Your task to perform on an android device: Go to calendar. Show me events next week Image 0: 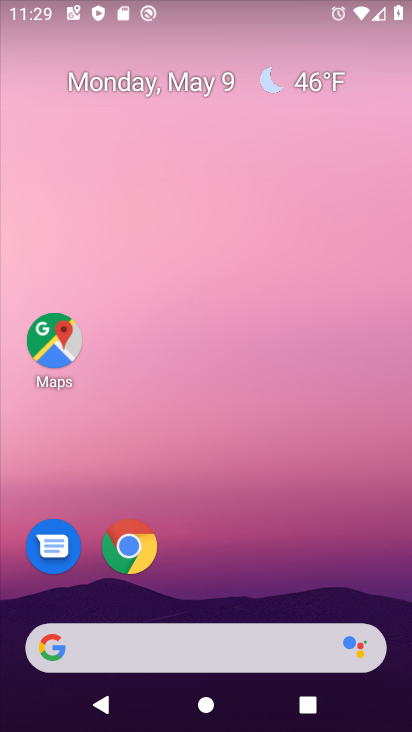
Step 0: drag from (302, 570) to (273, 26)
Your task to perform on an android device: Go to calendar. Show me events next week Image 1: 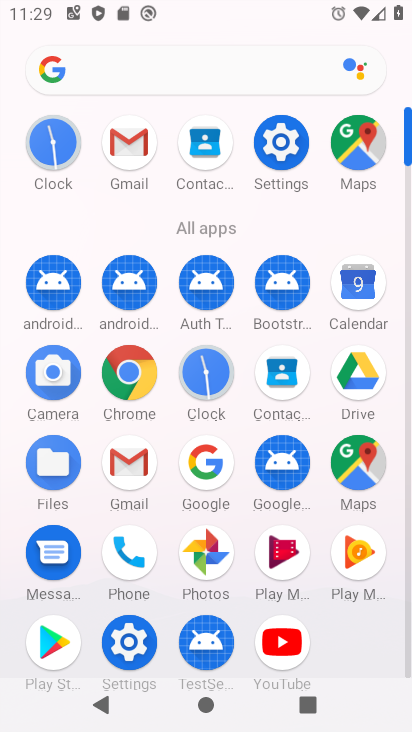
Step 1: click (346, 292)
Your task to perform on an android device: Go to calendar. Show me events next week Image 2: 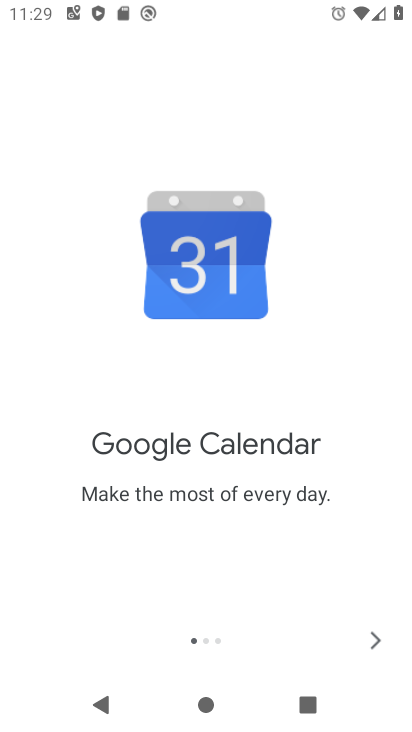
Step 2: click (369, 647)
Your task to perform on an android device: Go to calendar. Show me events next week Image 3: 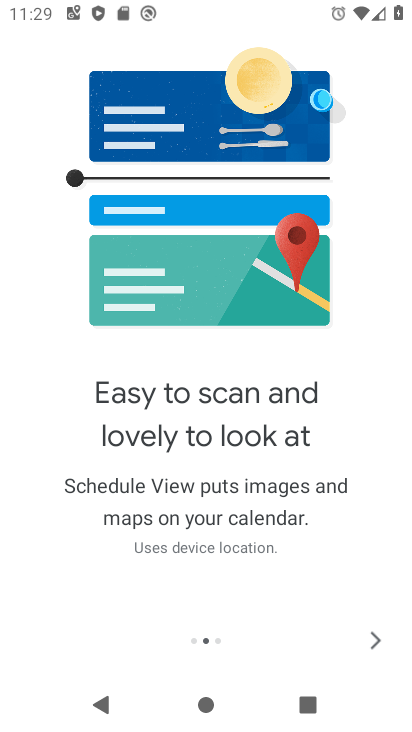
Step 3: click (369, 647)
Your task to perform on an android device: Go to calendar. Show me events next week Image 4: 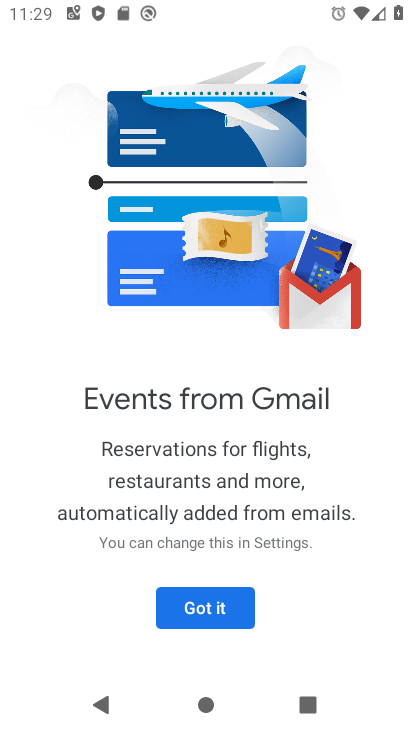
Step 4: click (207, 619)
Your task to perform on an android device: Go to calendar. Show me events next week Image 5: 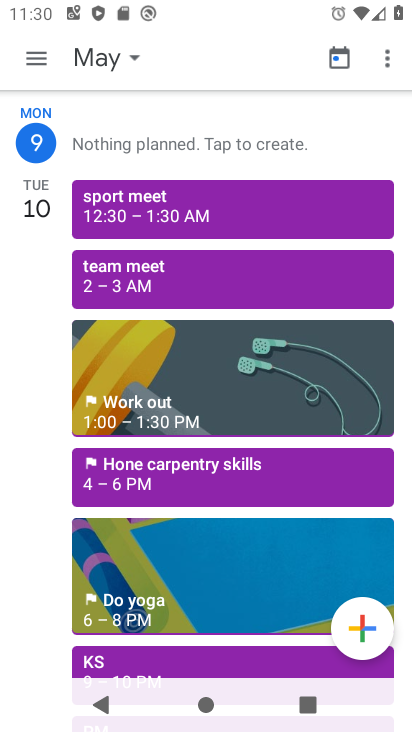
Step 5: click (33, 62)
Your task to perform on an android device: Go to calendar. Show me events next week Image 6: 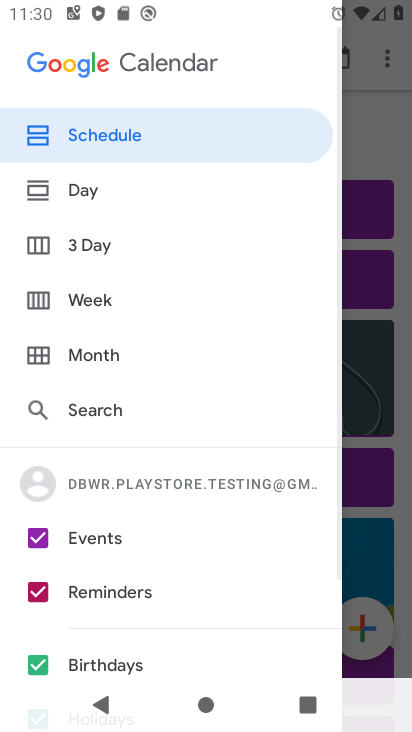
Step 6: click (87, 305)
Your task to perform on an android device: Go to calendar. Show me events next week Image 7: 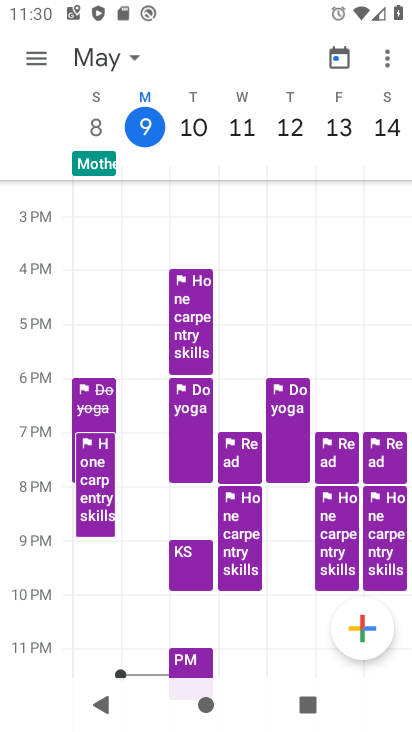
Step 7: drag from (305, 329) to (9, 246)
Your task to perform on an android device: Go to calendar. Show me events next week Image 8: 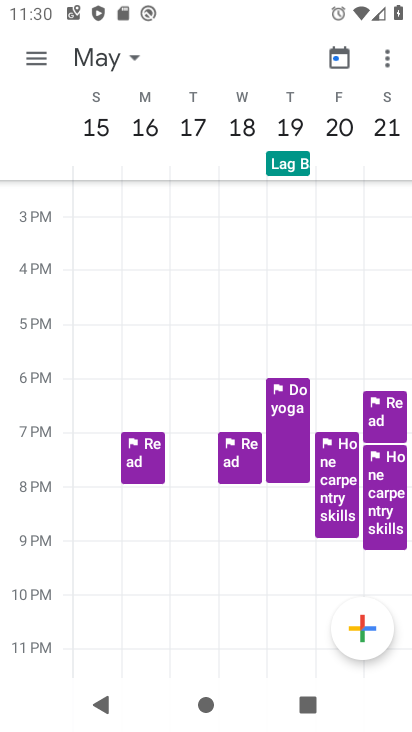
Step 8: drag from (241, 531) to (187, 296)
Your task to perform on an android device: Go to calendar. Show me events next week Image 9: 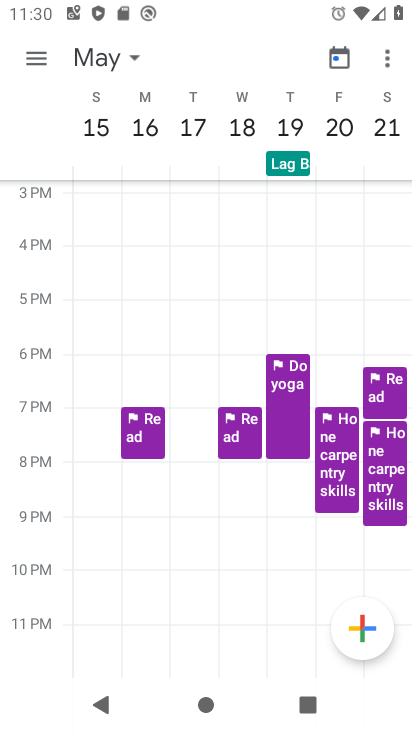
Step 9: click (32, 61)
Your task to perform on an android device: Go to calendar. Show me events next week Image 10: 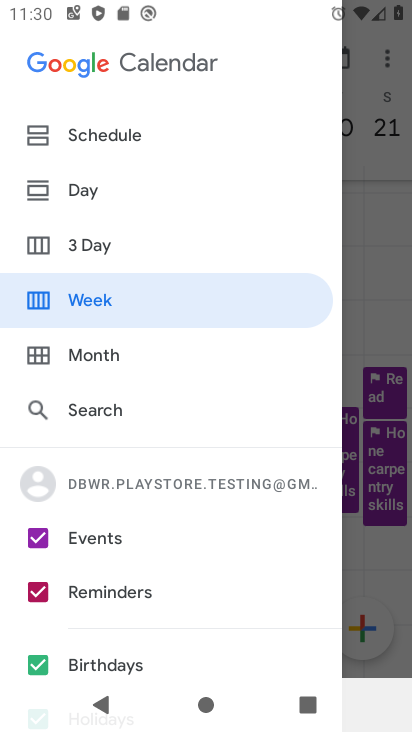
Step 10: click (41, 587)
Your task to perform on an android device: Go to calendar. Show me events next week Image 11: 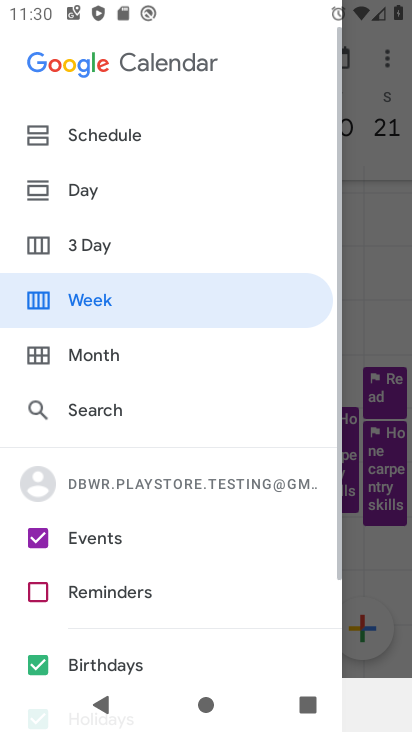
Step 11: click (45, 658)
Your task to perform on an android device: Go to calendar. Show me events next week Image 12: 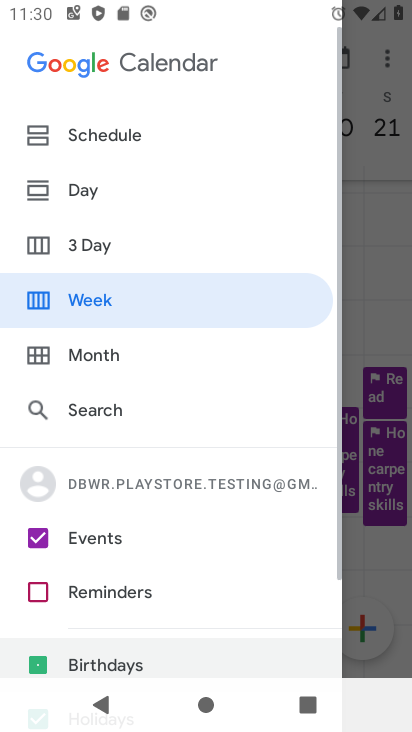
Step 12: drag from (150, 635) to (175, 313)
Your task to perform on an android device: Go to calendar. Show me events next week Image 13: 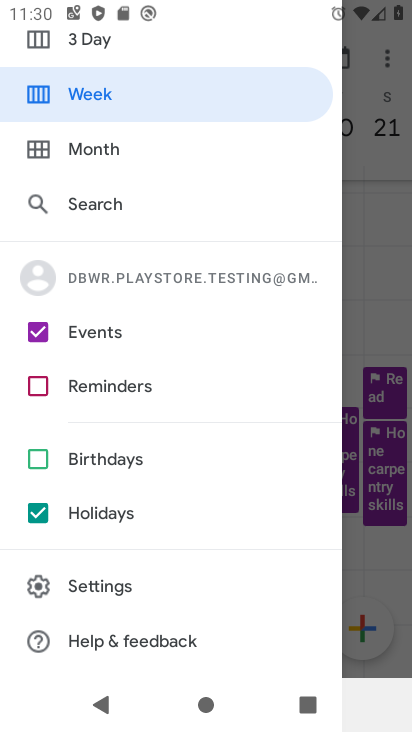
Step 13: click (48, 513)
Your task to perform on an android device: Go to calendar. Show me events next week Image 14: 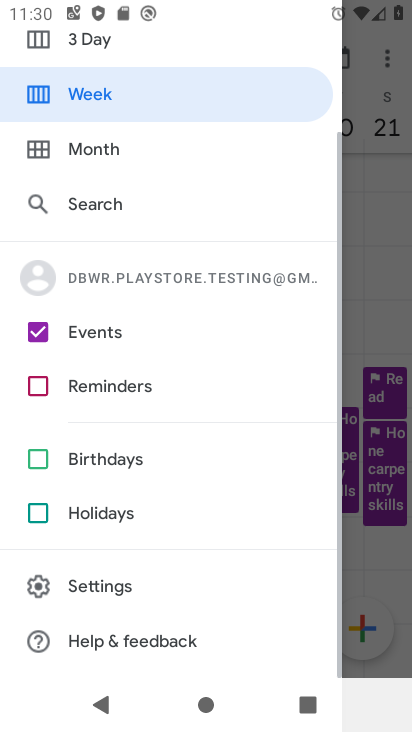
Step 14: click (37, 99)
Your task to perform on an android device: Go to calendar. Show me events next week Image 15: 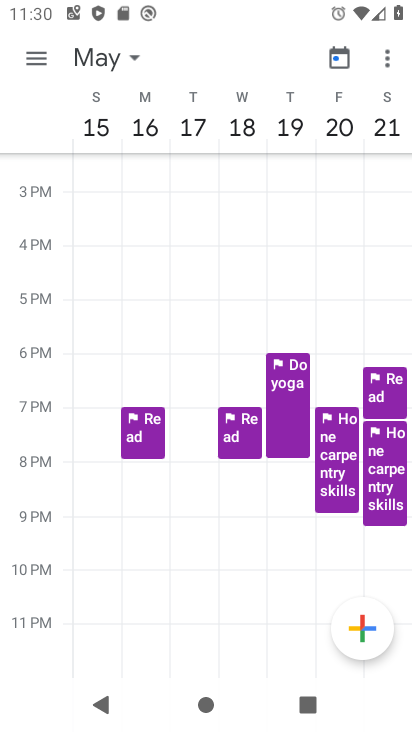
Step 15: task complete